Your task to perform on an android device: Is it going to rain tomorrow? Image 0: 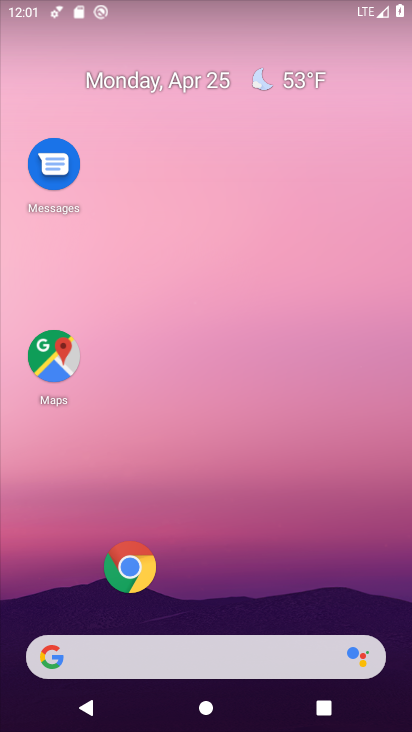
Step 0: drag from (144, 569) to (215, 92)
Your task to perform on an android device: Is it going to rain tomorrow? Image 1: 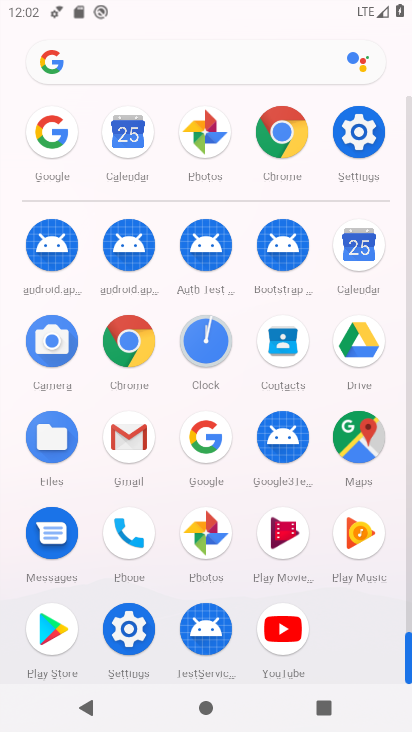
Step 1: click (199, 451)
Your task to perform on an android device: Is it going to rain tomorrow? Image 2: 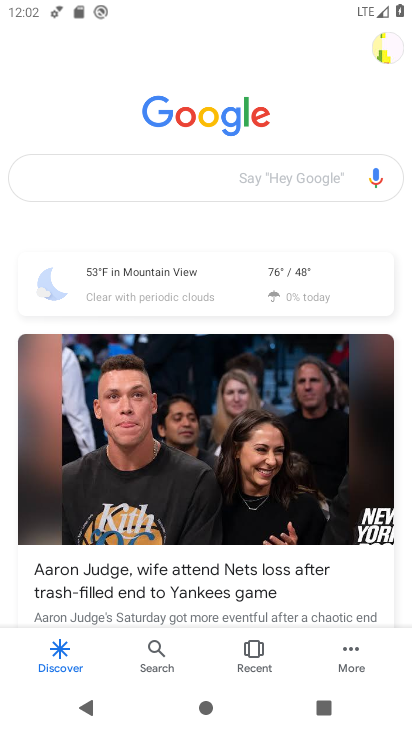
Step 2: click (230, 188)
Your task to perform on an android device: Is it going to rain tomorrow? Image 3: 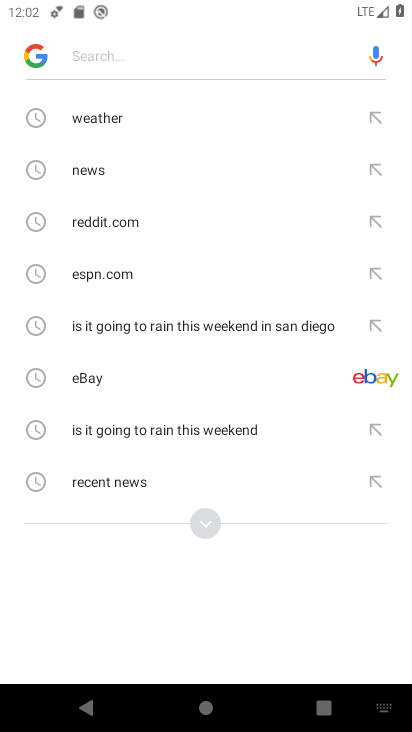
Step 3: click (257, 112)
Your task to perform on an android device: Is it going to rain tomorrow? Image 4: 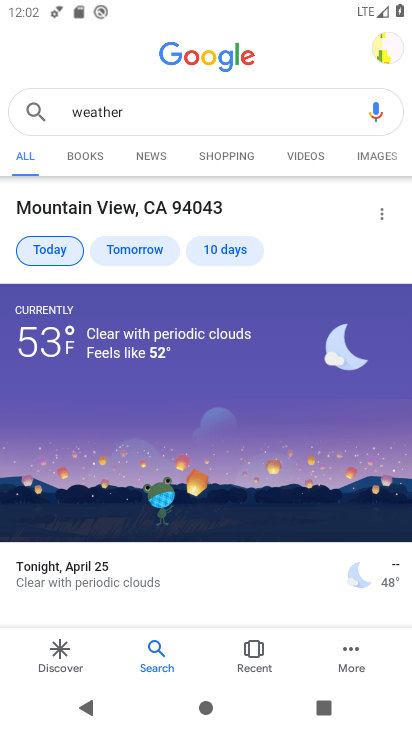
Step 4: click (155, 255)
Your task to perform on an android device: Is it going to rain tomorrow? Image 5: 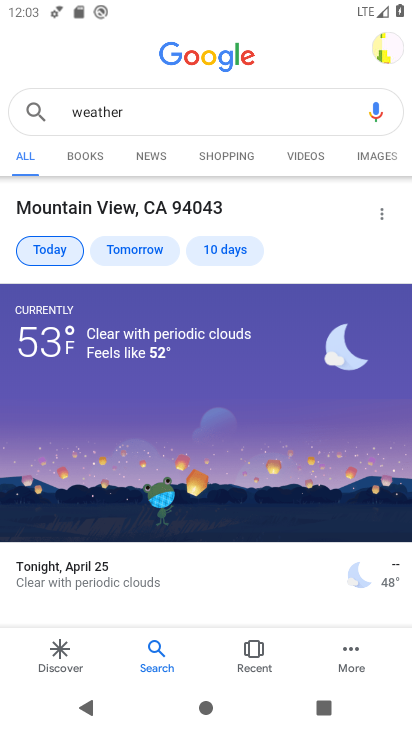
Step 5: click (158, 252)
Your task to perform on an android device: Is it going to rain tomorrow? Image 6: 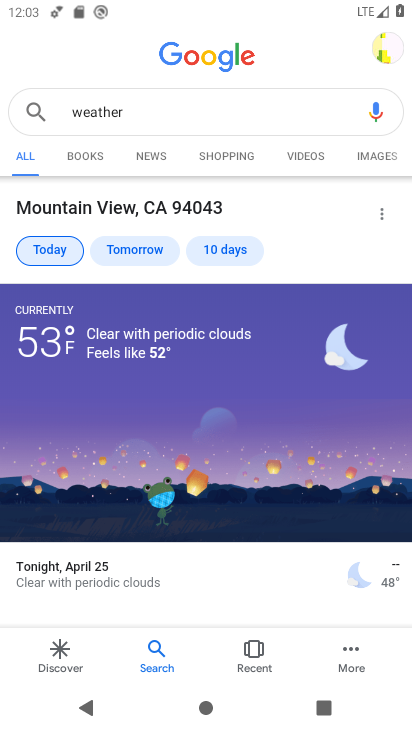
Step 6: click (158, 252)
Your task to perform on an android device: Is it going to rain tomorrow? Image 7: 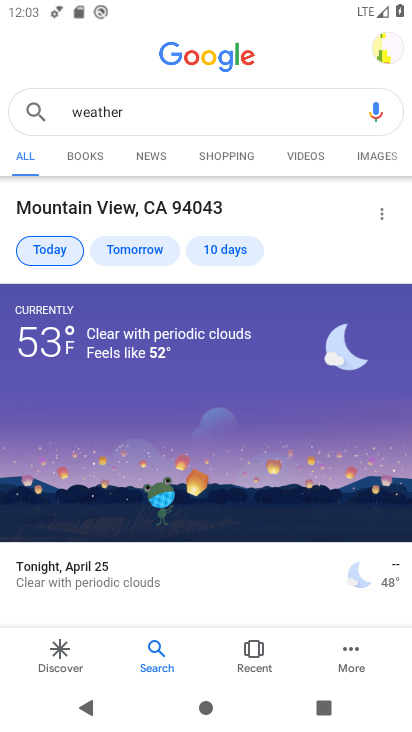
Step 7: click (160, 254)
Your task to perform on an android device: Is it going to rain tomorrow? Image 8: 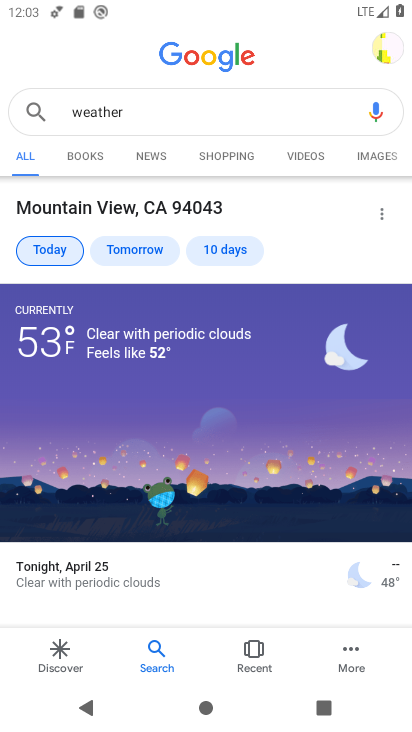
Step 8: task complete